Your task to perform on an android device: Open Chrome and go to settings Image 0: 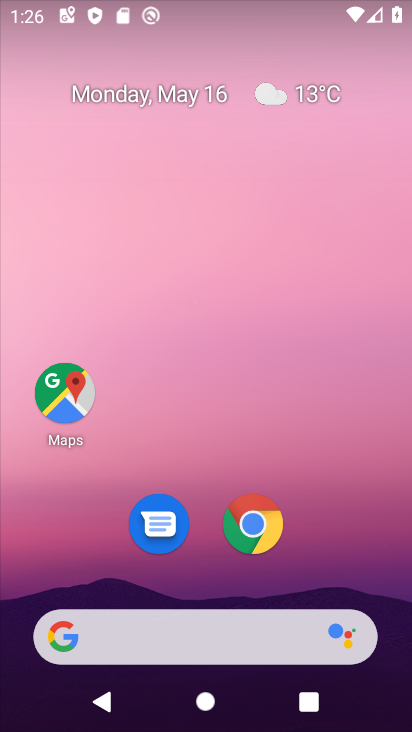
Step 0: click (260, 525)
Your task to perform on an android device: Open Chrome and go to settings Image 1: 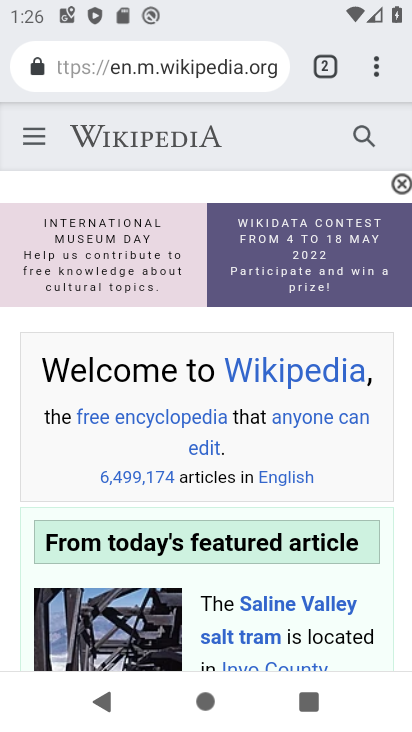
Step 1: click (375, 65)
Your task to perform on an android device: Open Chrome and go to settings Image 2: 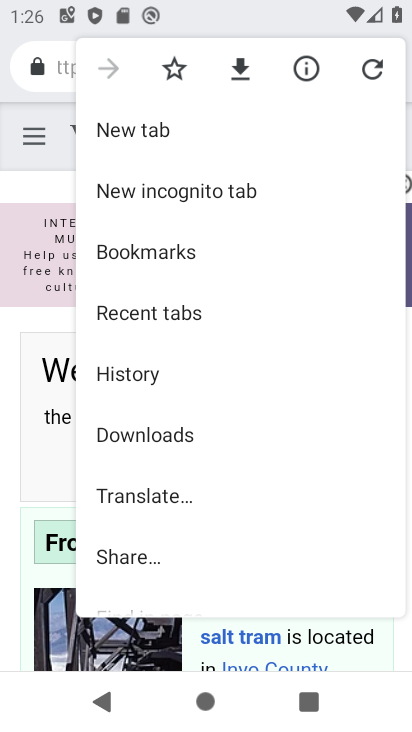
Step 2: drag from (225, 442) to (242, 186)
Your task to perform on an android device: Open Chrome and go to settings Image 3: 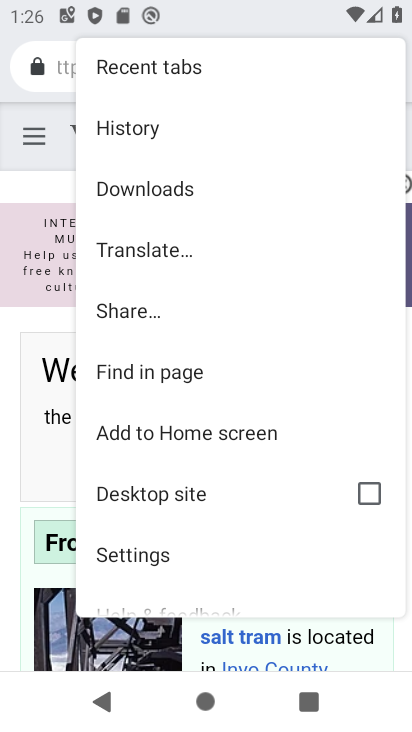
Step 3: click (188, 558)
Your task to perform on an android device: Open Chrome and go to settings Image 4: 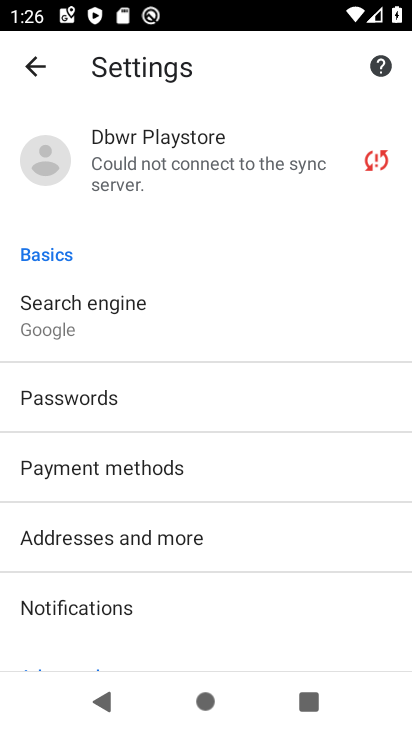
Step 4: task complete